Your task to perform on an android device: create a new album in the google photos Image 0: 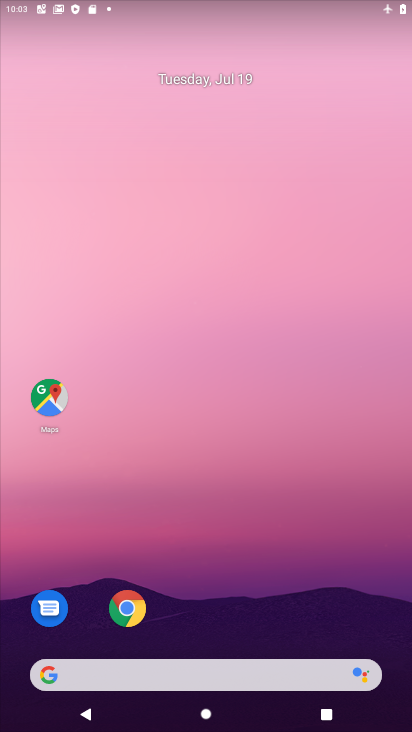
Step 0: drag from (258, 533) to (168, 24)
Your task to perform on an android device: create a new album in the google photos Image 1: 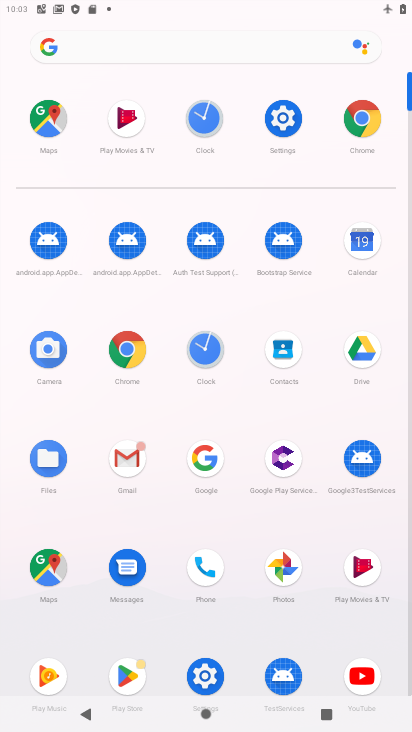
Step 1: click (289, 561)
Your task to perform on an android device: create a new album in the google photos Image 2: 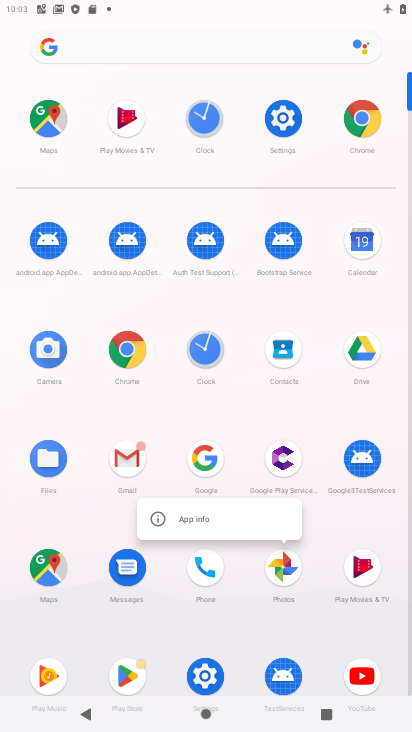
Step 2: click (278, 561)
Your task to perform on an android device: create a new album in the google photos Image 3: 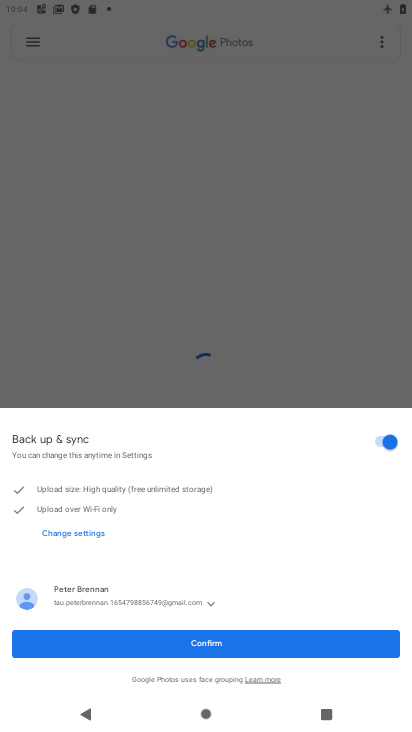
Step 3: click (252, 637)
Your task to perform on an android device: create a new album in the google photos Image 4: 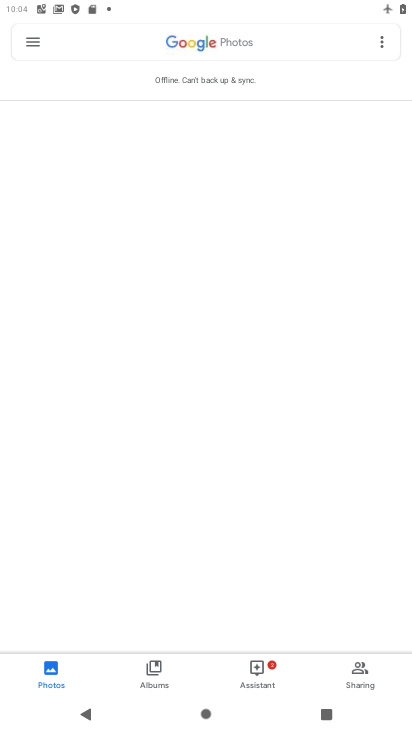
Step 4: click (18, 16)
Your task to perform on an android device: create a new album in the google photos Image 5: 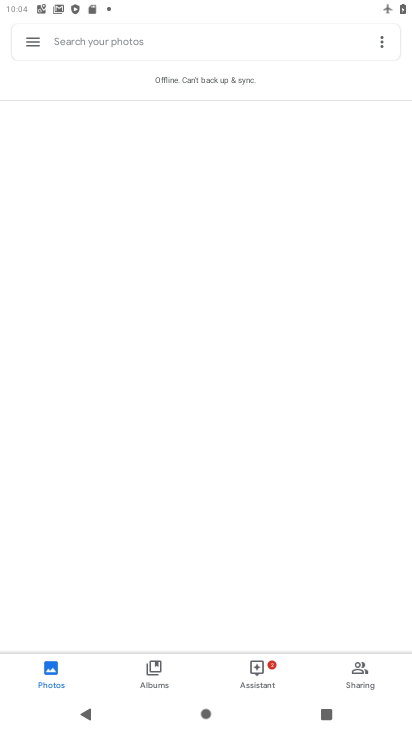
Step 5: press home button
Your task to perform on an android device: create a new album in the google photos Image 6: 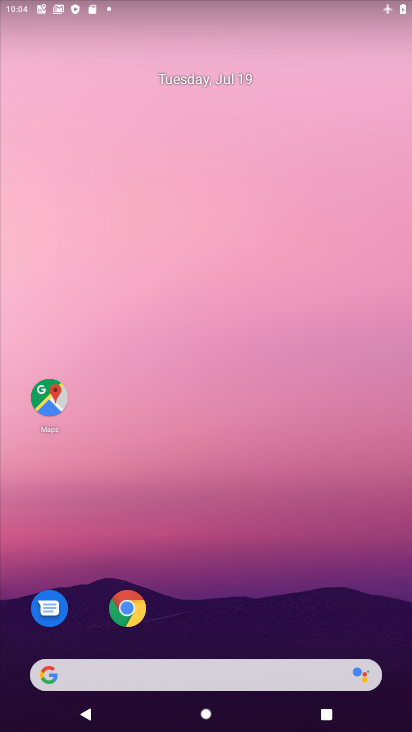
Step 6: drag from (325, 344) to (342, 237)
Your task to perform on an android device: create a new album in the google photos Image 7: 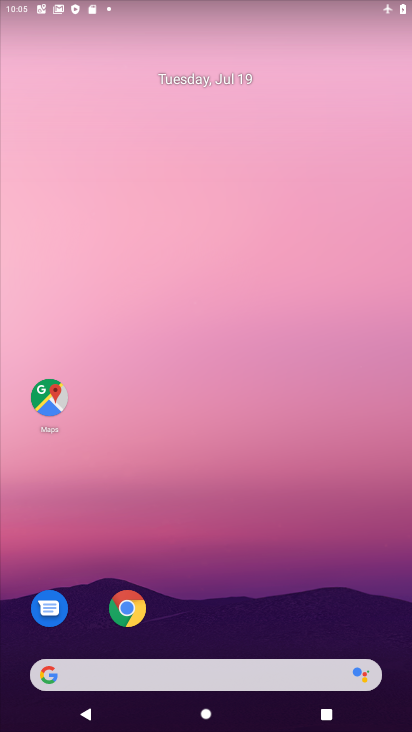
Step 7: drag from (365, 598) to (238, 157)
Your task to perform on an android device: create a new album in the google photos Image 8: 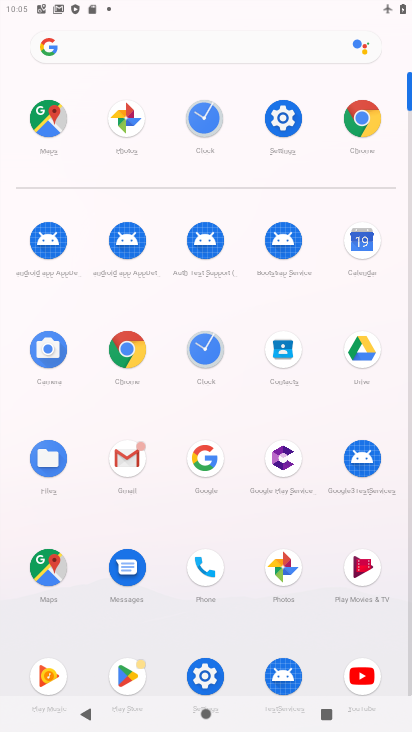
Step 8: click (290, 565)
Your task to perform on an android device: create a new album in the google photos Image 9: 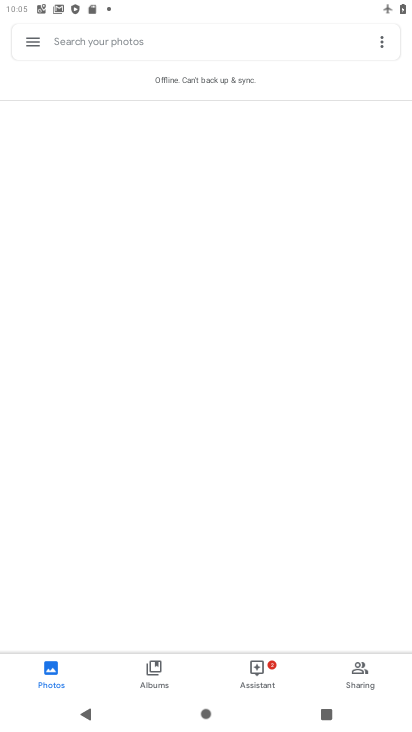
Step 9: click (170, 665)
Your task to perform on an android device: create a new album in the google photos Image 10: 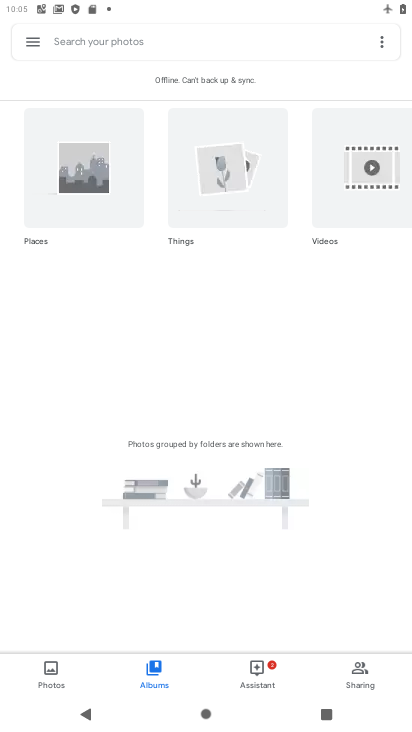
Step 10: click (389, 37)
Your task to perform on an android device: create a new album in the google photos Image 11: 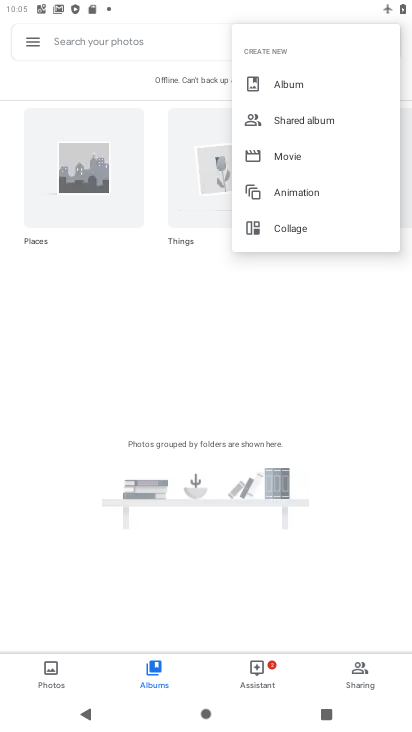
Step 11: click (291, 79)
Your task to perform on an android device: create a new album in the google photos Image 12: 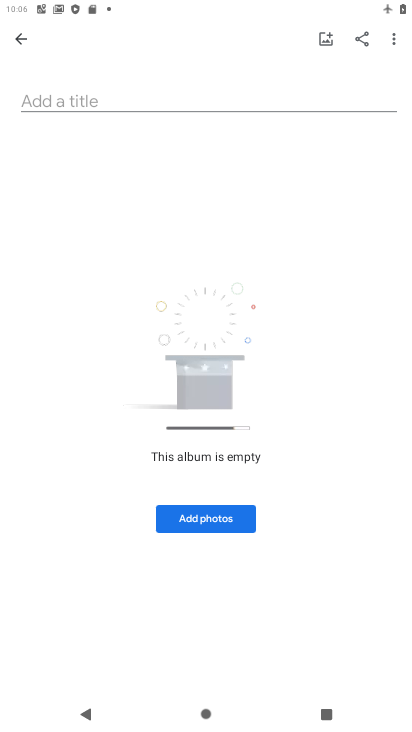
Step 12: press home button
Your task to perform on an android device: create a new album in the google photos Image 13: 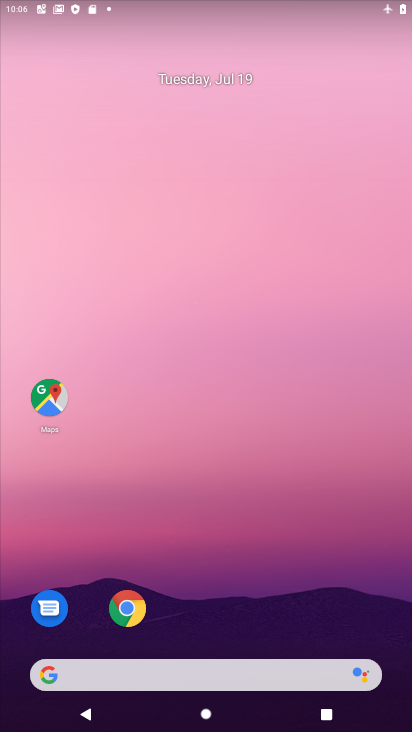
Step 13: drag from (341, 544) to (281, 105)
Your task to perform on an android device: create a new album in the google photos Image 14: 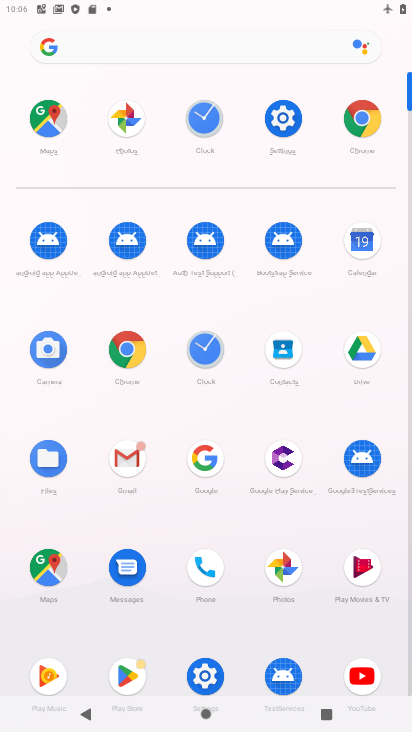
Step 14: click (282, 565)
Your task to perform on an android device: create a new album in the google photos Image 15: 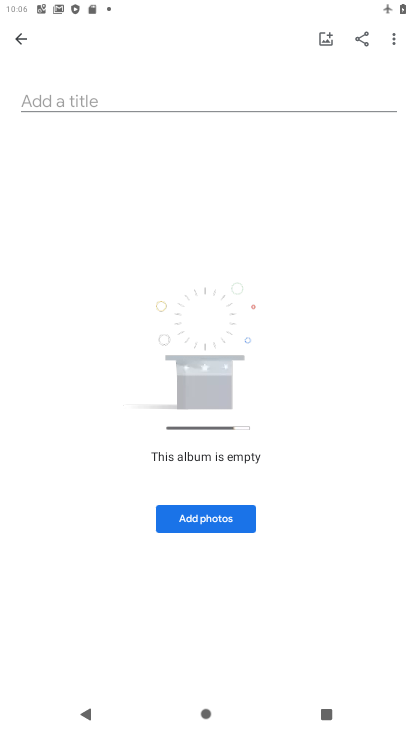
Step 15: click (270, 527)
Your task to perform on an android device: create a new album in the google photos Image 16: 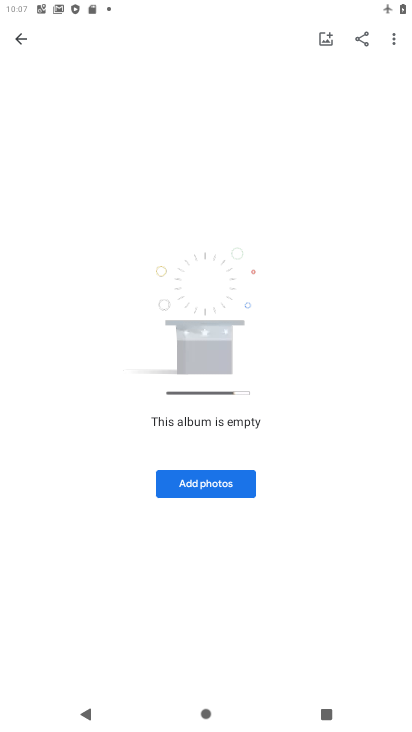
Step 16: task complete